Your task to perform on an android device: turn off notifications settings in the gmail app Image 0: 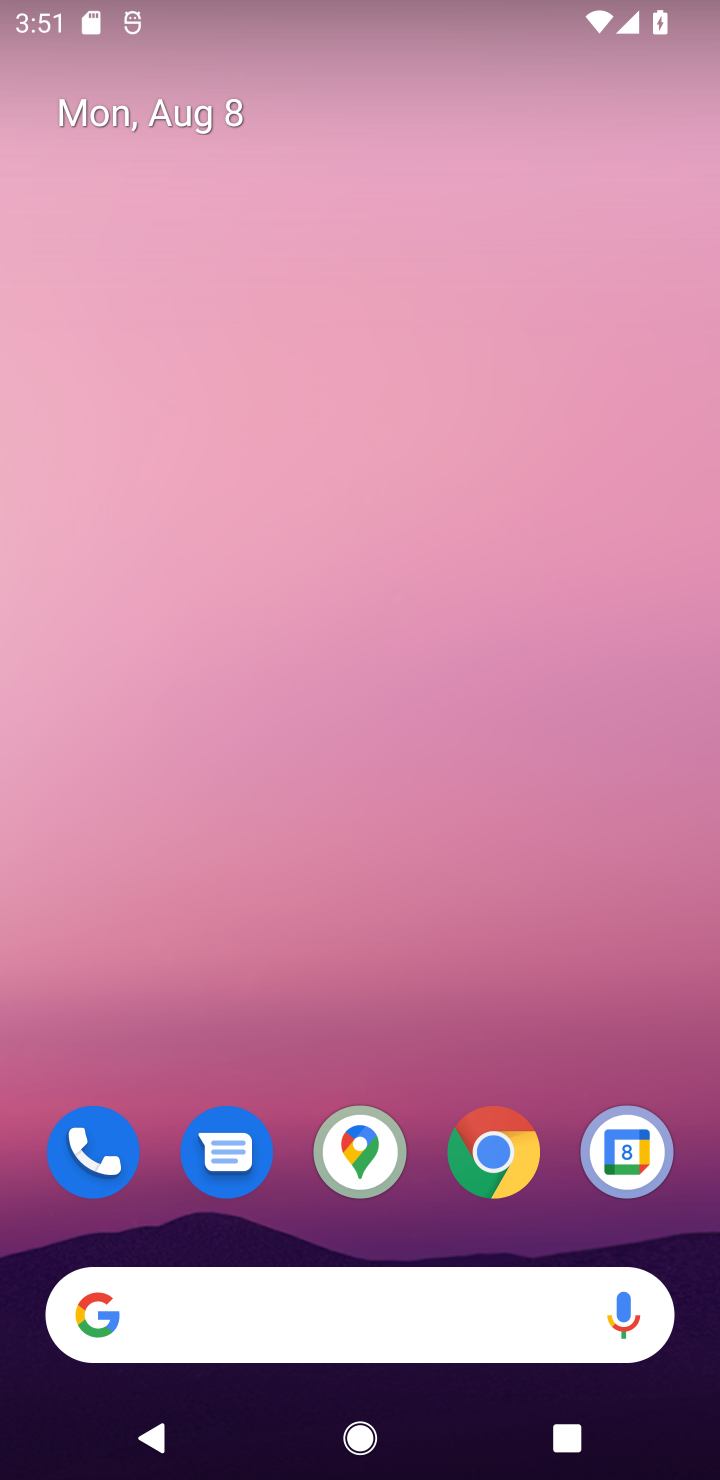
Step 0: drag from (309, 1245) to (453, 277)
Your task to perform on an android device: turn off notifications settings in the gmail app Image 1: 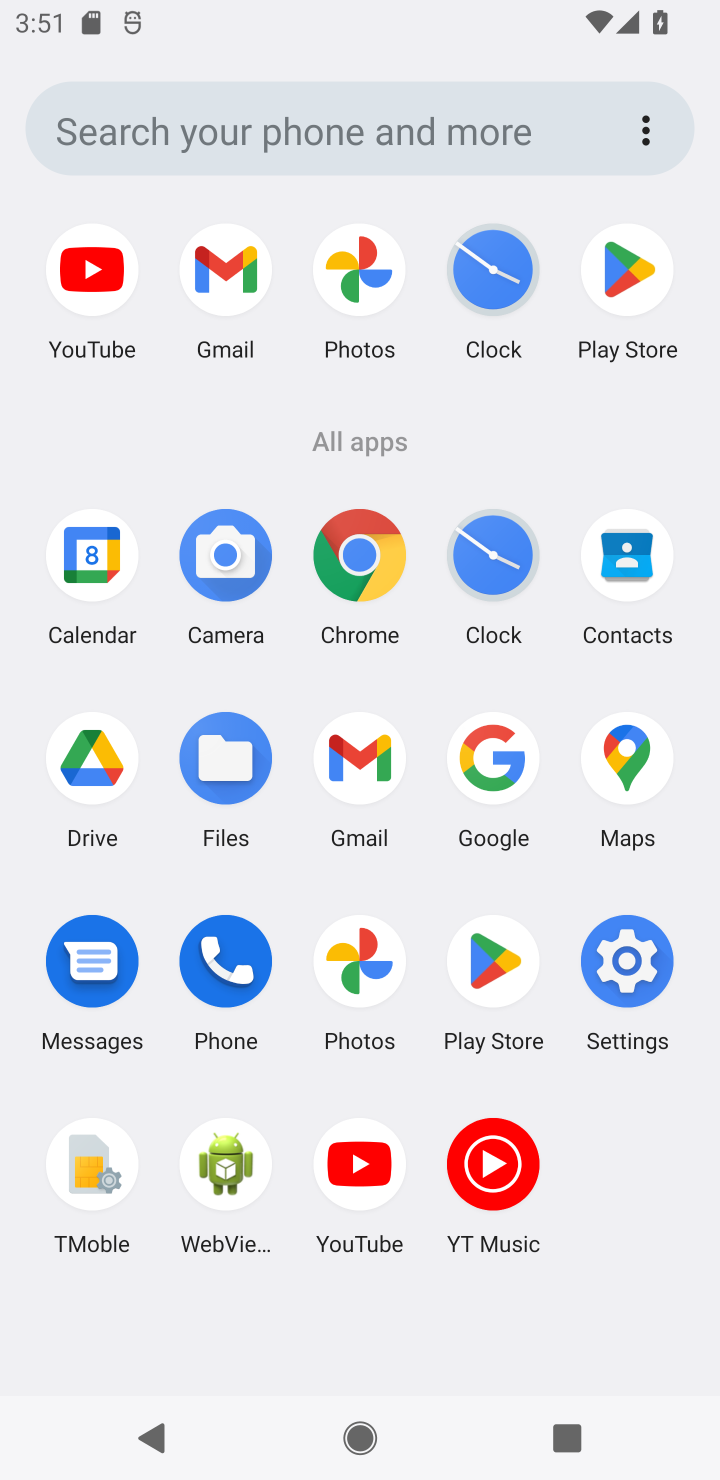
Step 1: click (338, 753)
Your task to perform on an android device: turn off notifications settings in the gmail app Image 2: 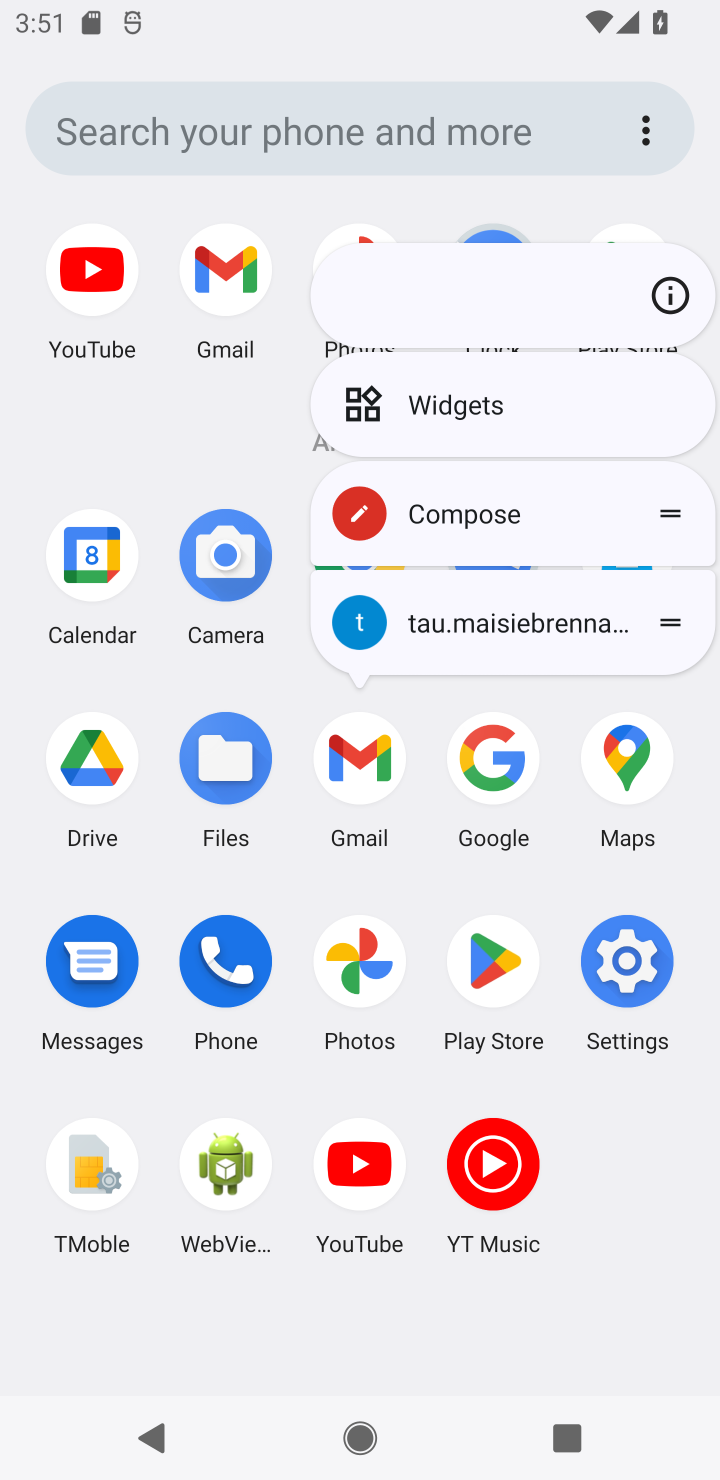
Step 2: click (661, 290)
Your task to perform on an android device: turn off notifications settings in the gmail app Image 3: 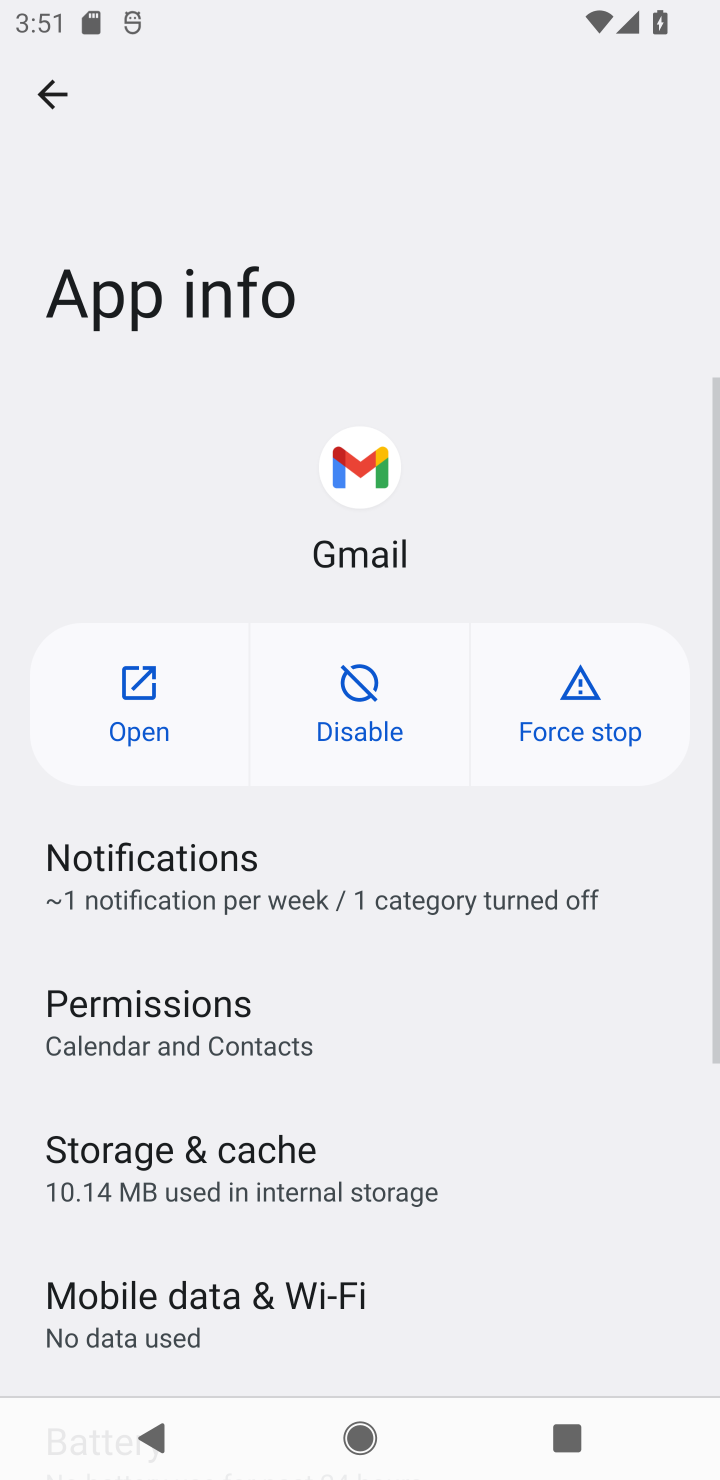
Step 3: click (219, 853)
Your task to perform on an android device: turn off notifications settings in the gmail app Image 4: 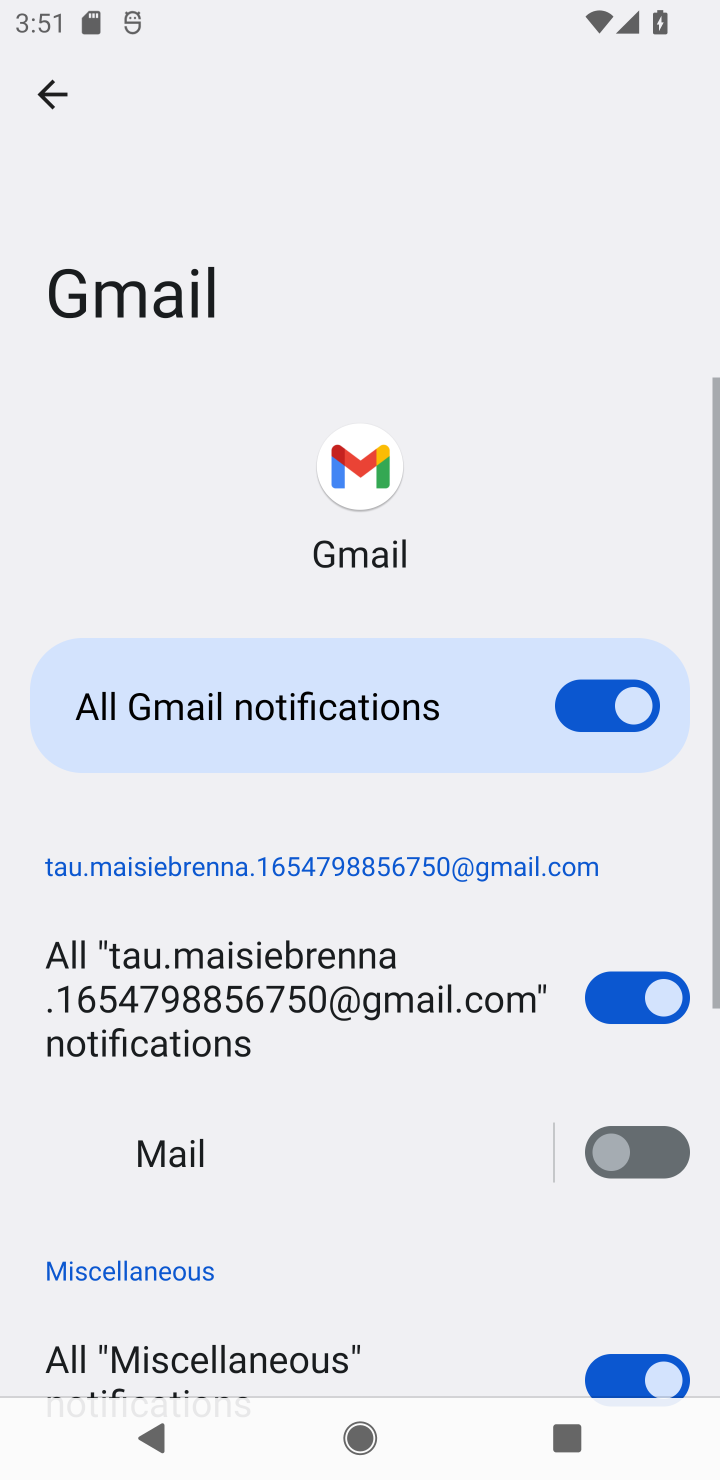
Step 4: click (641, 706)
Your task to perform on an android device: turn off notifications settings in the gmail app Image 5: 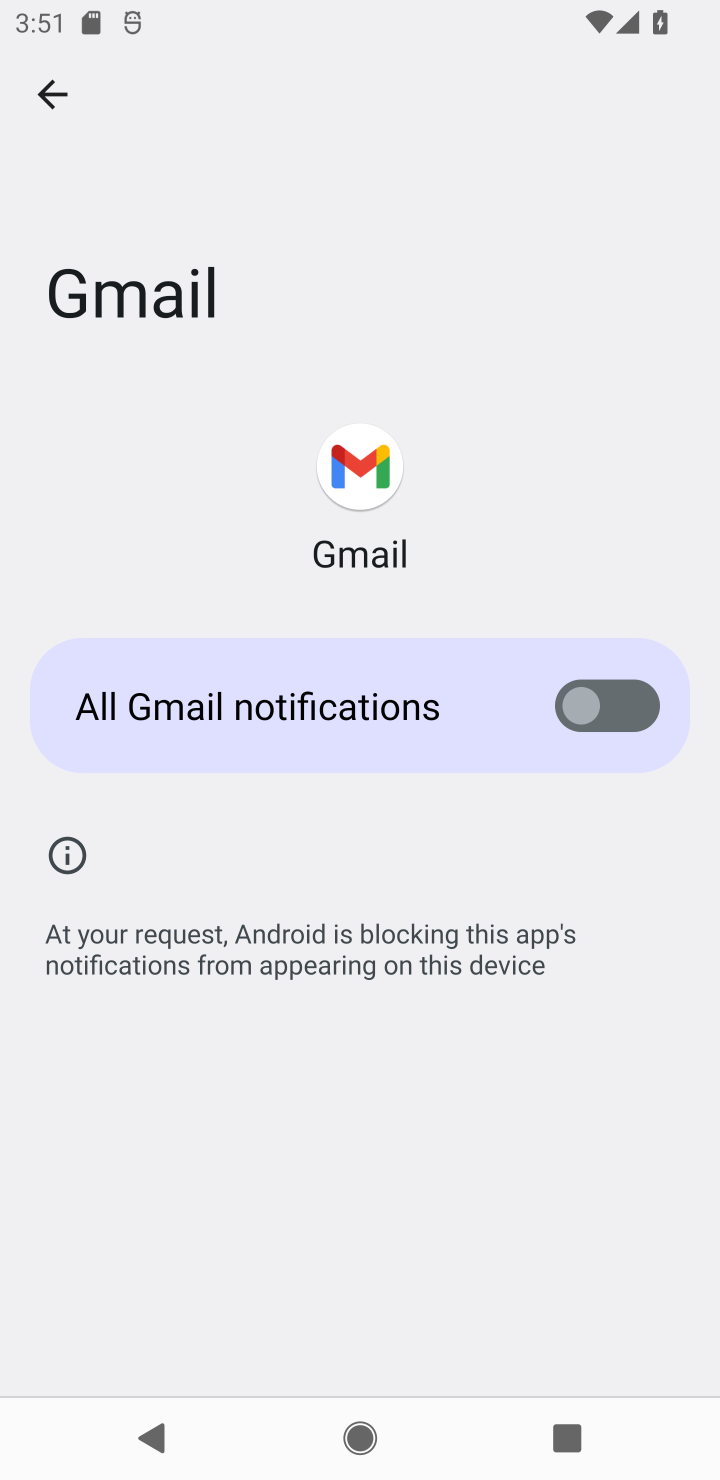
Step 5: task complete